Your task to perform on an android device: Open Google Maps Image 0: 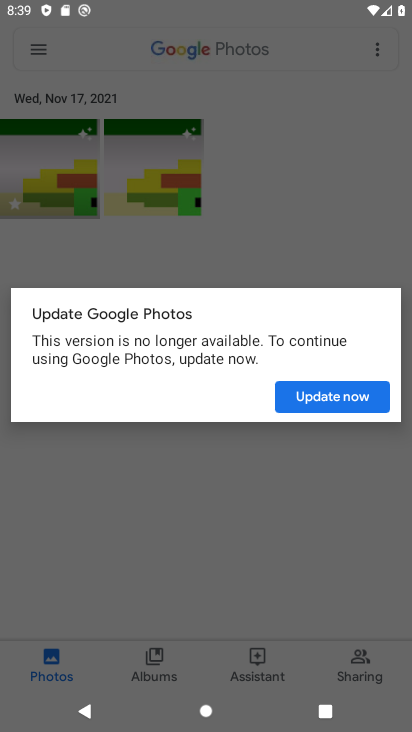
Step 0: press back button
Your task to perform on an android device: Open Google Maps Image 1: 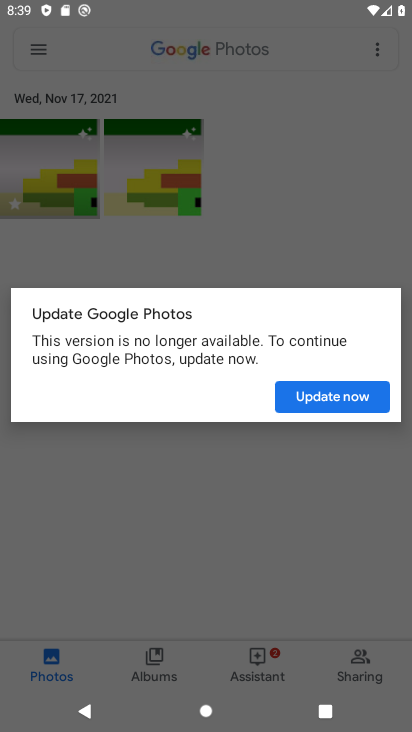
Step 1: press back button
Your task to perform on an android device: Open Google Maps Image 2: 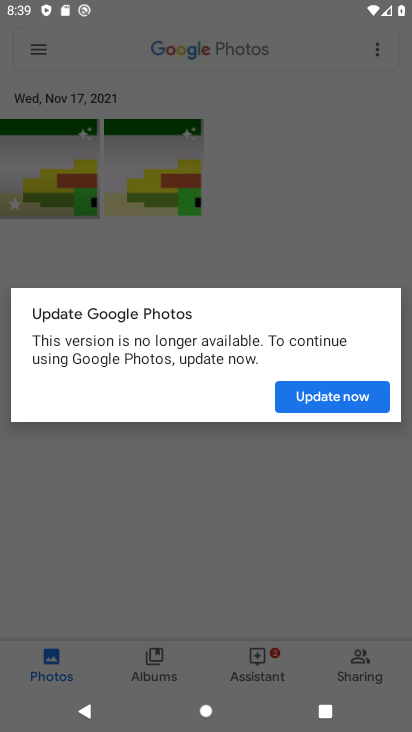
Step 2: press home button
Your task to perform on an android device: Open Google Maps Image 3: 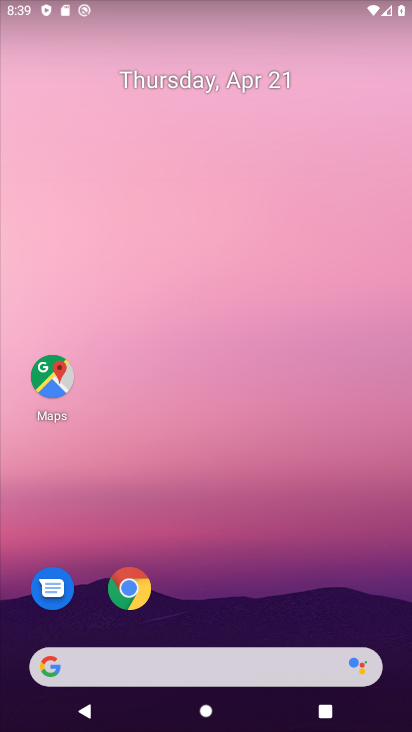
Step 3: drag from (319, 549) to (200, 29)
Your task to perform on an android device: Open Google Maps Image 4: 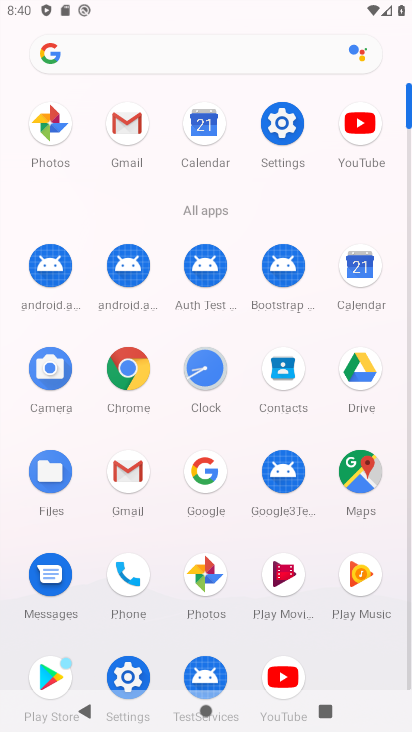
Step 4: drag from (7, 547) to (4, 215)
Your task to perform on an android device: Open Google Maps Image 5: 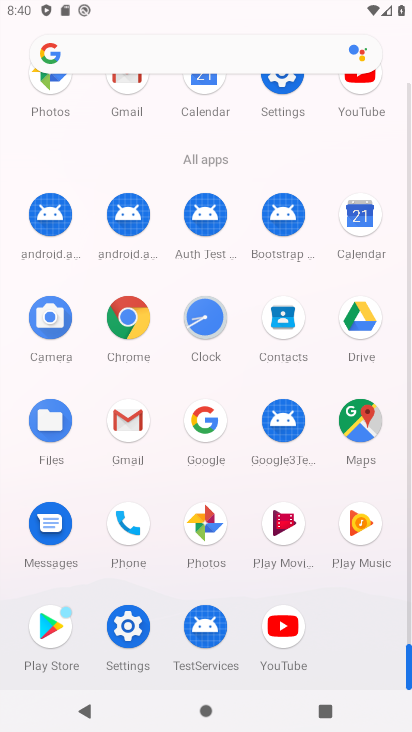
Step 5: click (357, 420)
Your task to perform on an android device: Open Google Maps Image 6: 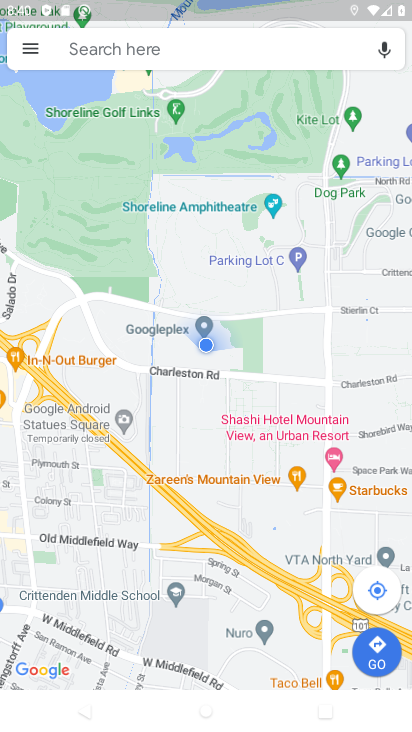
Step 6: task complete